Your task to perform on an android device: uninstall "Spotify: Music and Podcasts" Image 0: 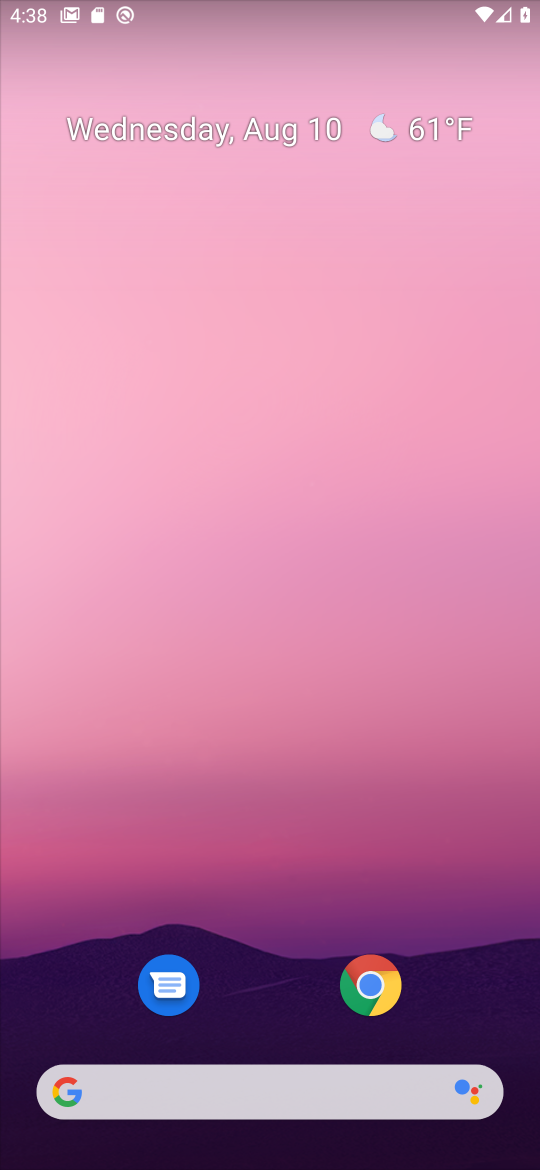
Step 0: drag from (323, 610) to (390, 0)
Your task to perform on an android device: uninstall "Spotify: Music and Podcasts" Image 1: 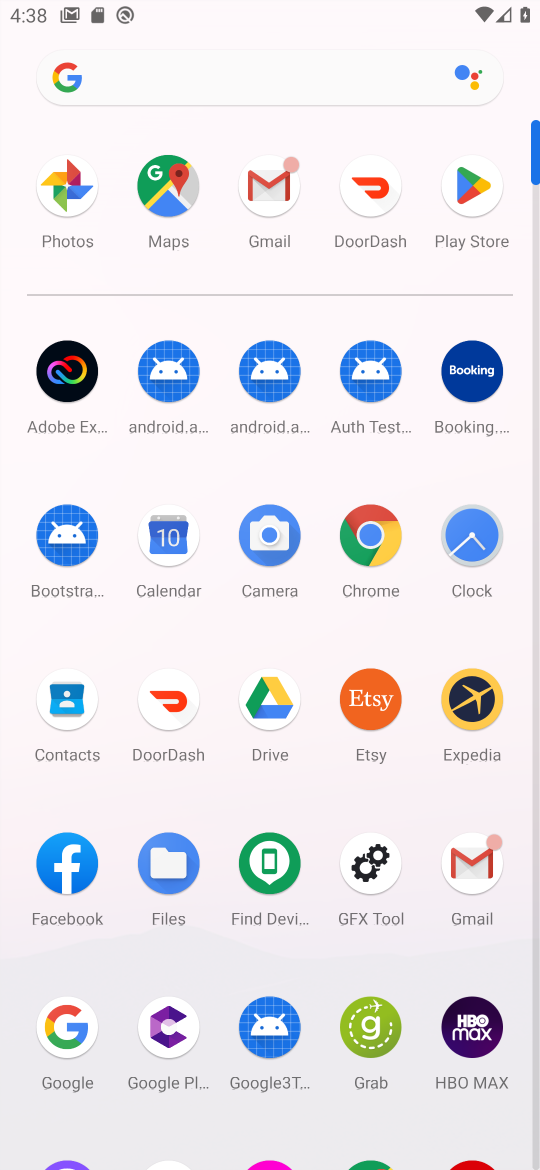
Step 1: click (473, 187)
Your task to perform on an android device: uninstall "Spotify: Music and Podcasts" Image 2: 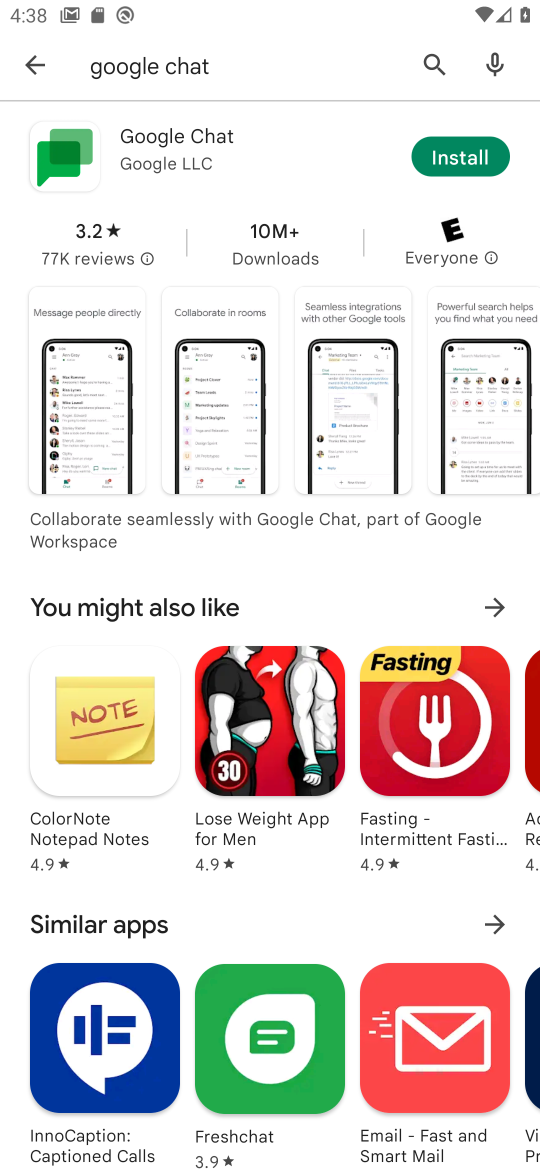
Step 2: click (28, 68)
Your task to perform on an android device: uninstall "Spotify: Music and Podcasts" Image 3: 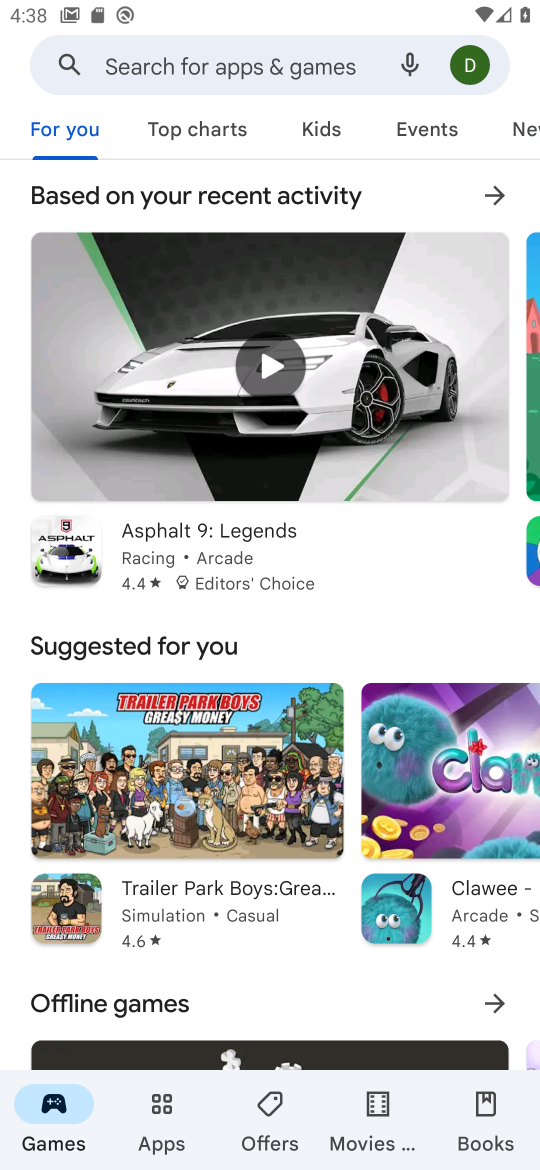
Step 3: click (138, 69)
Your task to perform on an android device: uninstall "Spotify: Music and Podcasts" Image 4: 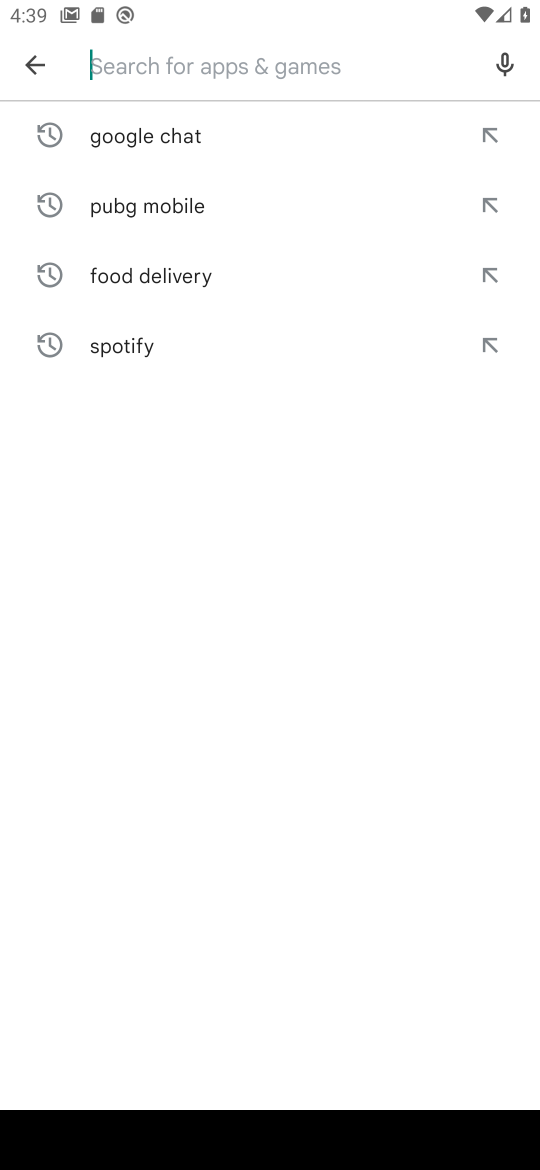
Step 4: type "Spotify"
Your task to perform on an android device: uninstall "Spotify: Music and Podcasts" Image 5: 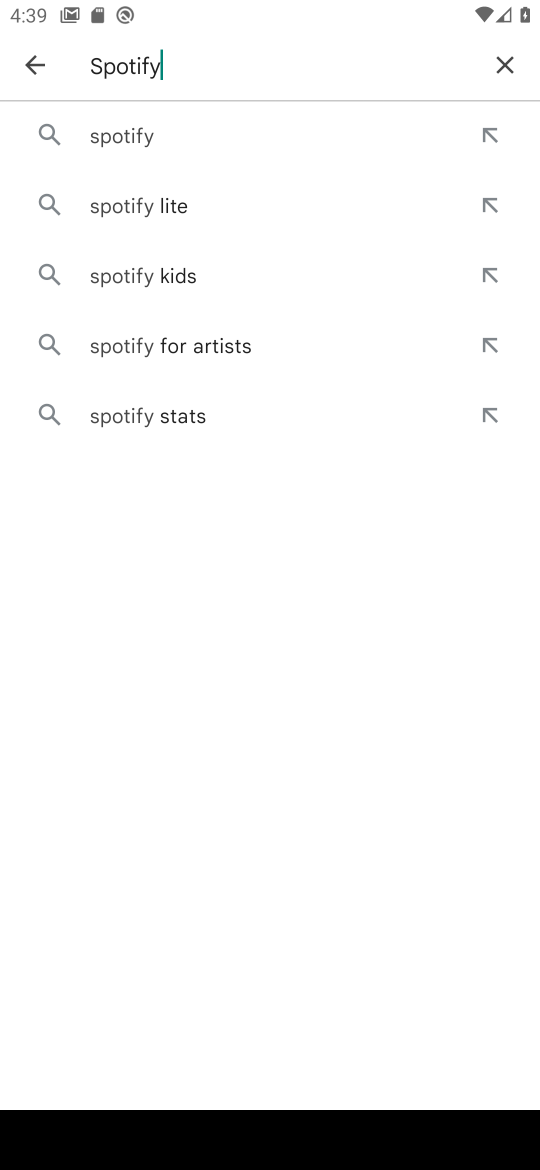
Step 5: click (127, 149)
Your task to perform on an android device: uninstall "Spotify: Music and Podcasts" Image 6: 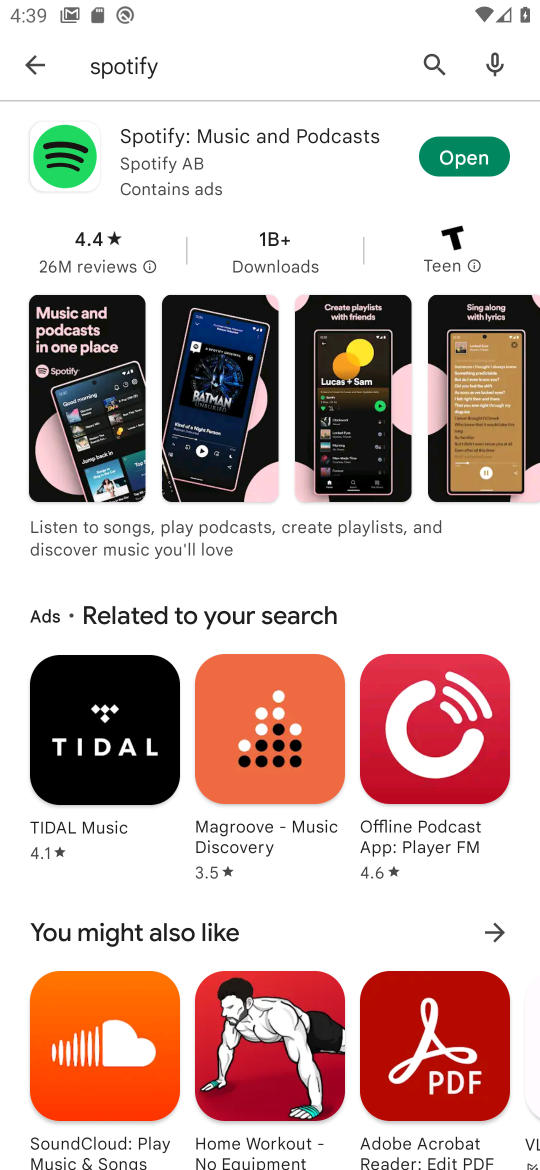
Step 6: click (181, 146)
Your task to perform on an android device: uninstall "Spotify: Music and Podcasts" Image 7: 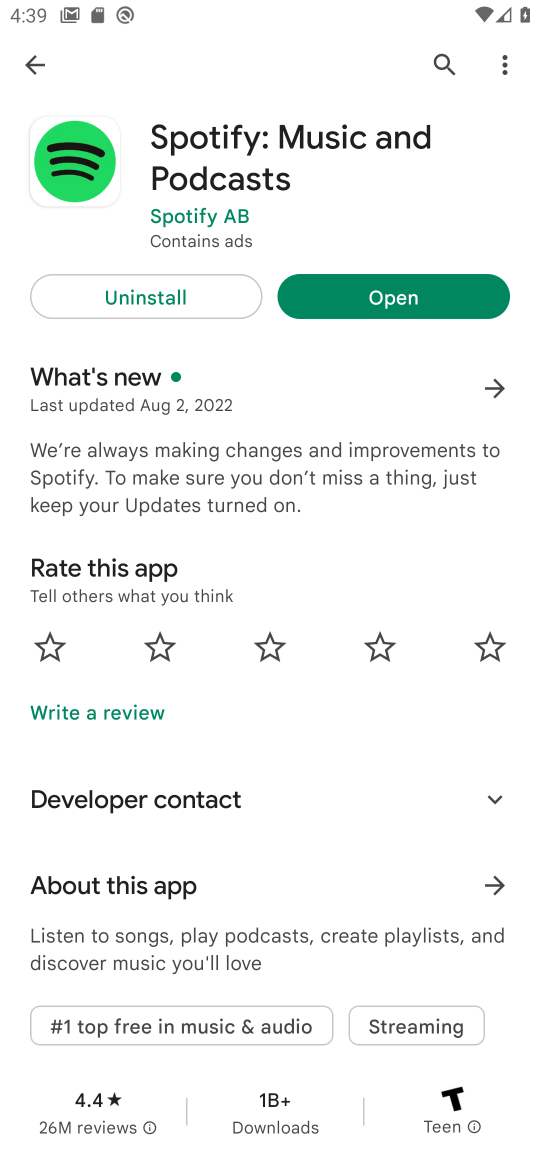
Step 7: click (137, 304)
Your task to perform on an android device: uninstall "Spotify: Music and Podcasts" Image 8: 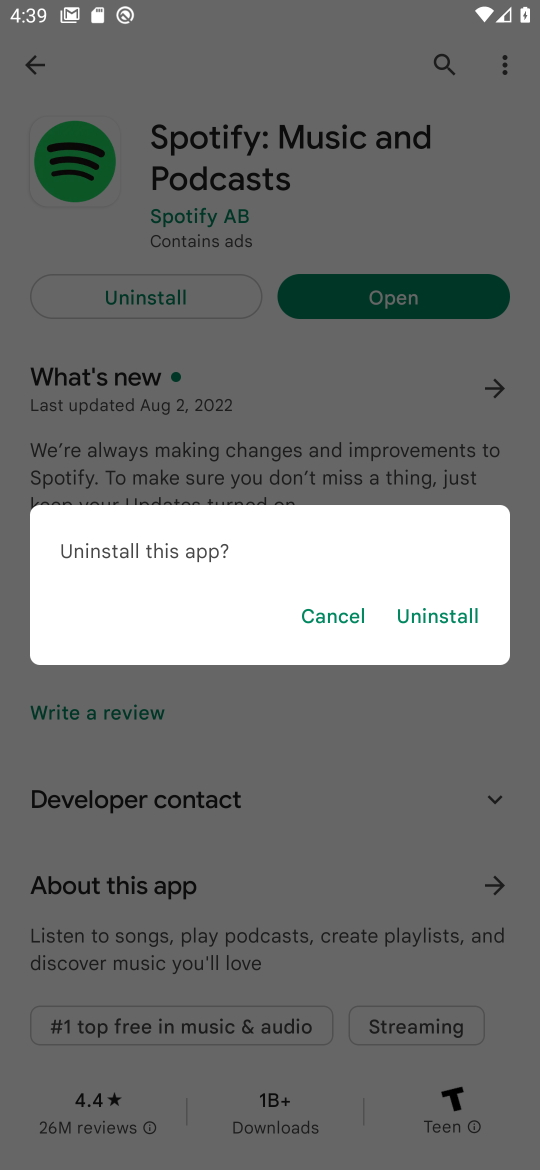
Step 8: click (422, 615)
Your task to perform on an android device: uninstall "Spotify: Music and Podcasts" Image 9: 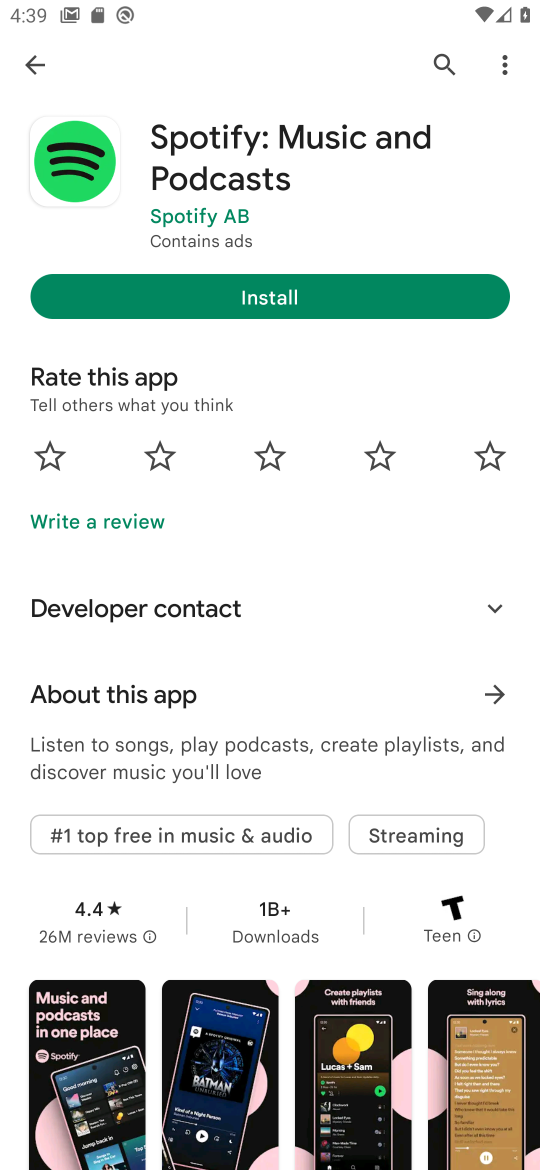
Step 9: task complete